Your task to perform on an android device: Open calendar and show me the fourth week of next month Image 0: 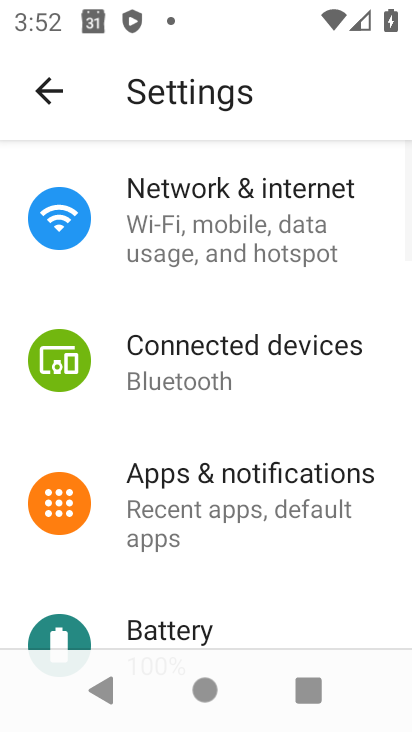
Step 0: press home button
Your task to perform on an android device: Open calendar and show me the fourth week of next month Image 1: 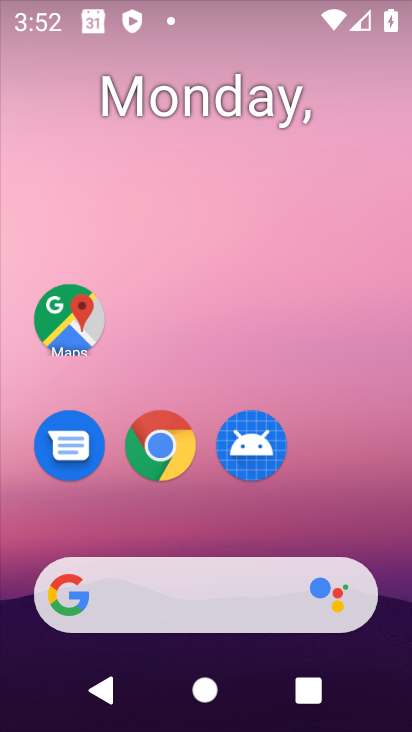
Step 1: click (343, 43)
Your task to perform on an android device: Open calendar and show me the fourth week of next month Image 2: 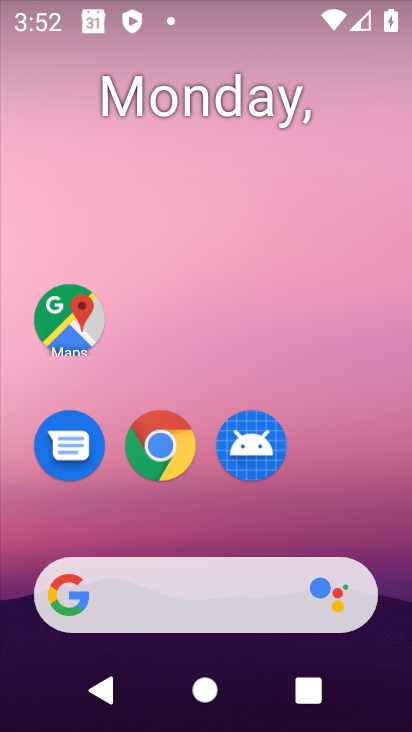
Step 2: drag from (326, 482) to (371, 85)
Your task to perform on an android device: Open calendar and show me the fourth week of next month Image 3: 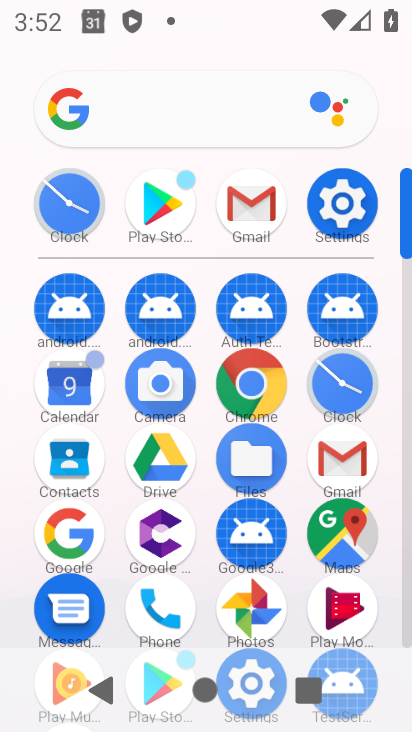
Step 3: click (100, 381)
Your task to perform on an android device: Open calendar and show me the fourth week of next month Image 4: 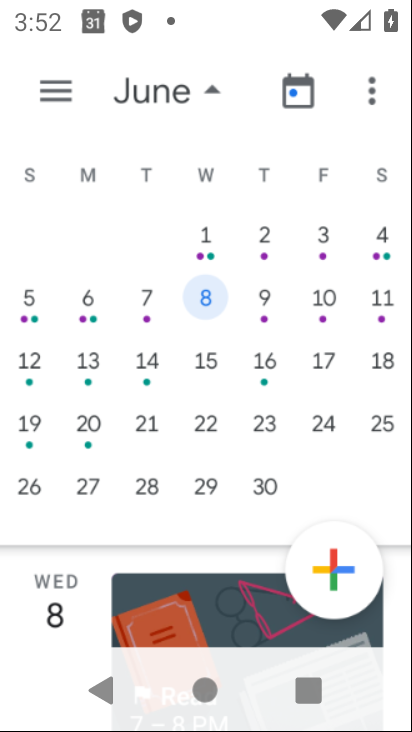
Step 4: drag from (289, 364) to (4, 323)
Your task to perform on an android device: Open calendar and show me the fourth week of next month Image 5: 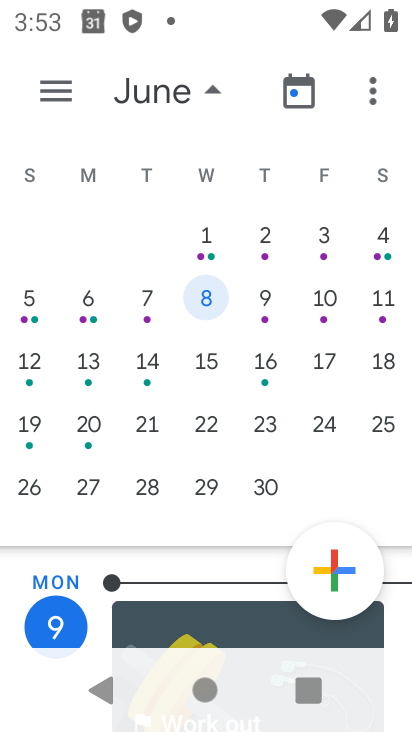
Step 5: click (190, 405)
Your task to perform on an android device: Open calendar and show me the fourth week of next month Image 6: 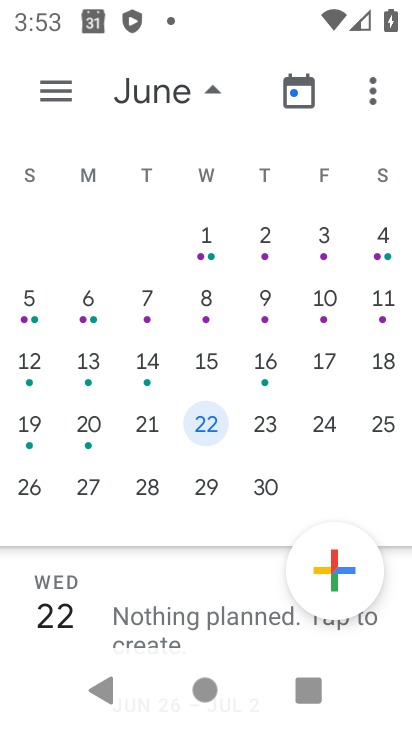
Step 6: task complete